Your task to perform on an android device: add a label to a message in the gmail app Image 0: 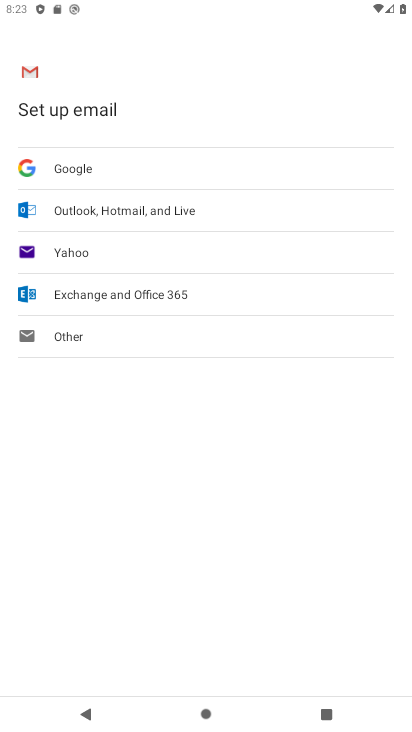
Step 0: press home button
Your task to perform on an android device: add a label to a message in the gmail app Image 1: 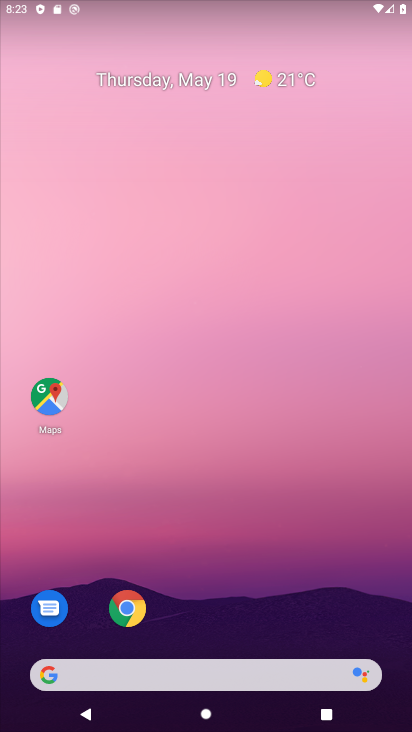
Step 1: drag from (223, 520) to (183, 114)
Your task to perform on an android device: add a label to a message in the gmail app Image 2: 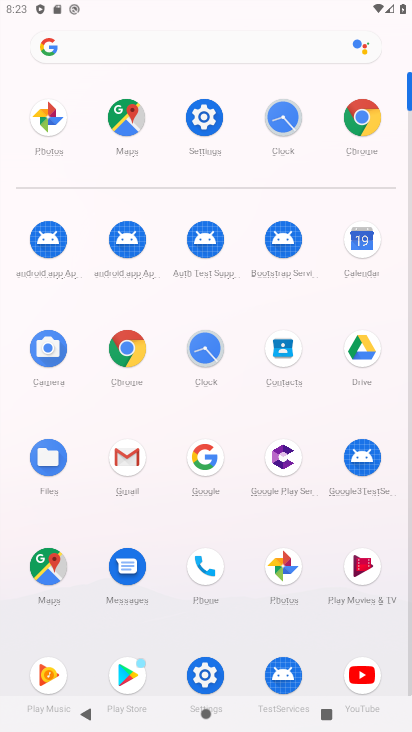
Step 2: click (126, 449)
Your task to perform on an android device: add a label to a message in the gmail app Image 3: 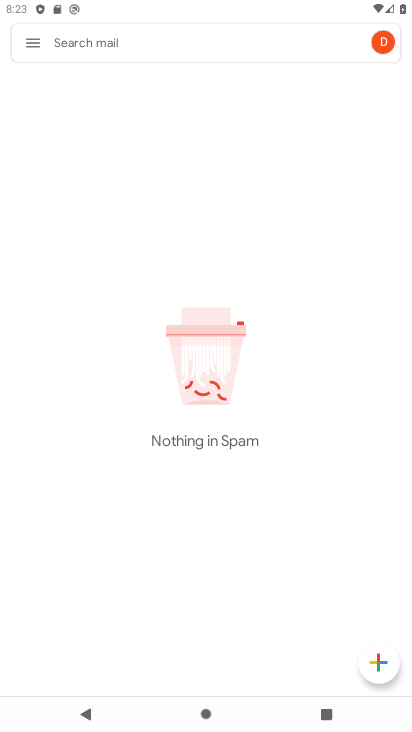
Step 3: click (31, 41)
Your task to perform on an android device: add a label to a message in the gmail app Image 4: 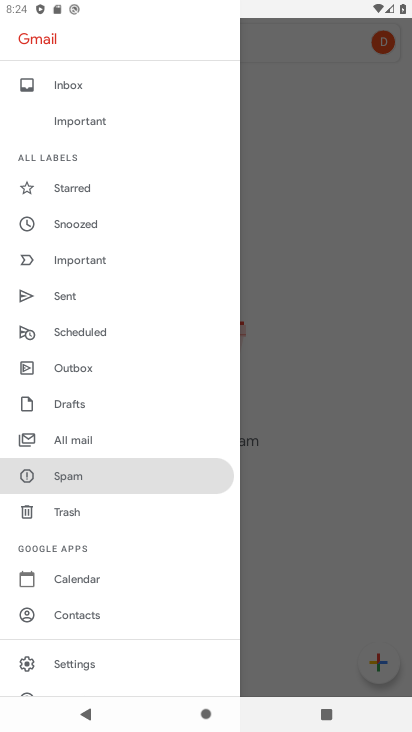
Step 4: click (72, 438)
Your task to perform on an android device: add a label to a message in the gmail app Image 5: 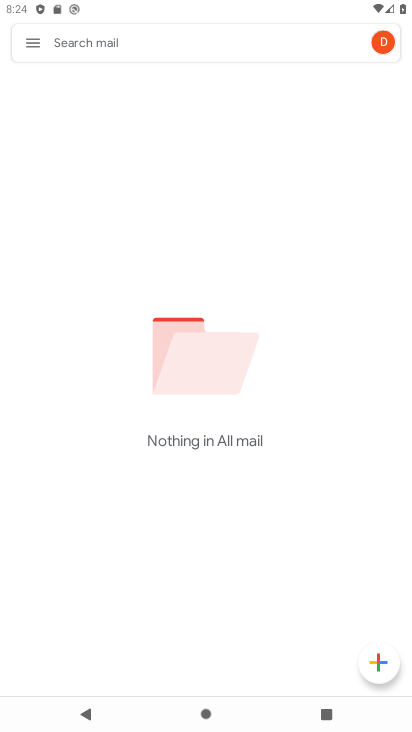
Step 5: task complete